Your task to perform on an android device: Open calendar and show me the first week of next month Image 0: 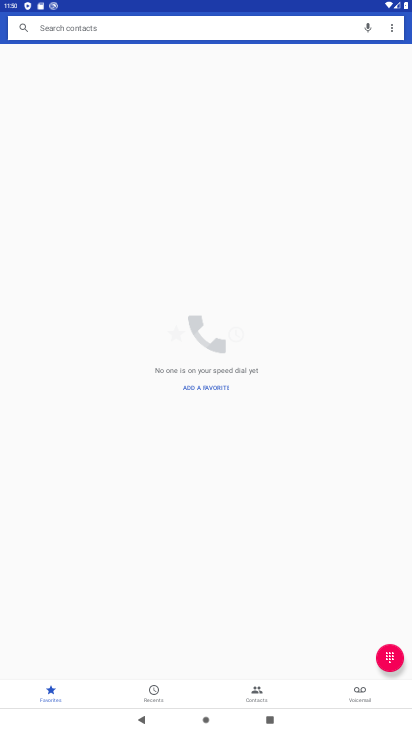
Step 0: press home button
Your task to perform on an android device: Open calendar and show me the first week of next month Image 1: 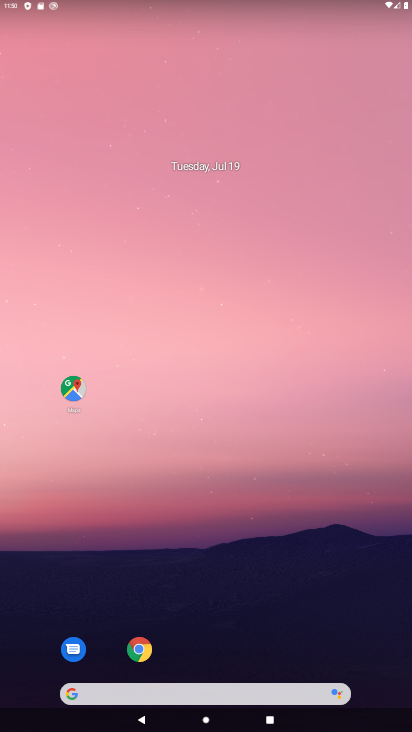
Step 1: drag from (233, 557) to (270, 161)
Your task to perform on an android device: Open calendar and show me the first week of next month Image 2: 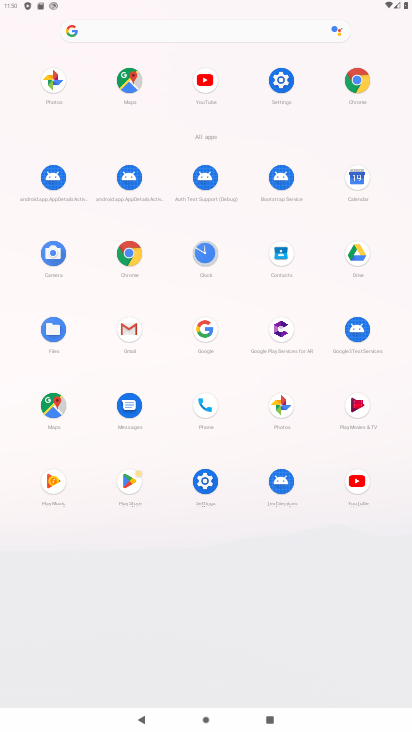
Step 2: click (358, 181)
Your task to perform on an android device: Open calendar and show me the first week of next month Image 3: 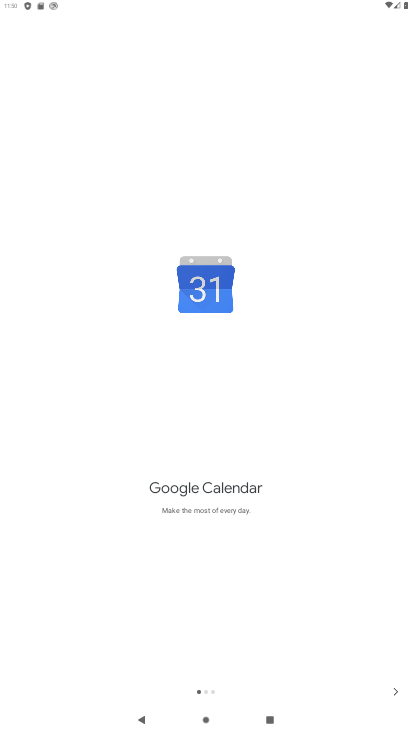
Step 3: click (396, 686)
Your task to perform on an android device: Open calendar and show me the first week of next month Image 4: 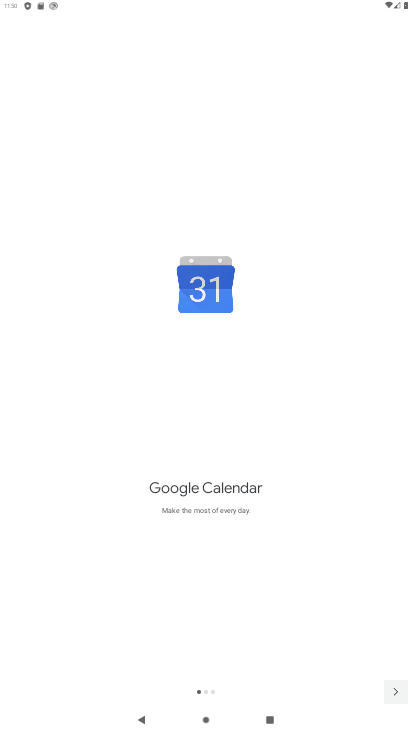
Step 4: click (396, 686)
Your task to perform on an android device: Open calendar and show me the first week of next month Image 5: 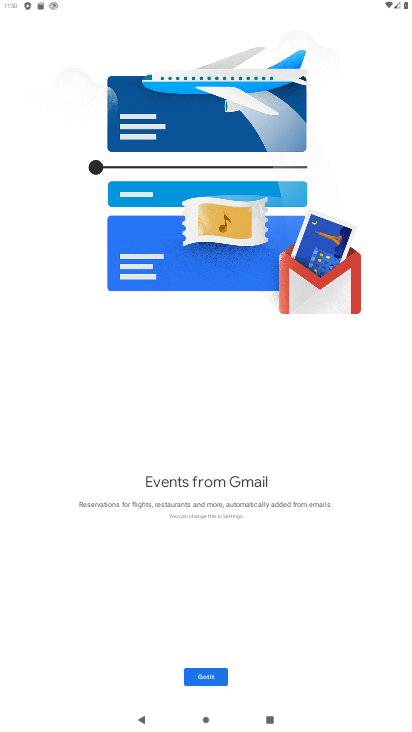
Step 5: click (396, 686)
Your task to perform on an android device: Open calendar and show me the first week of next month Image 6: 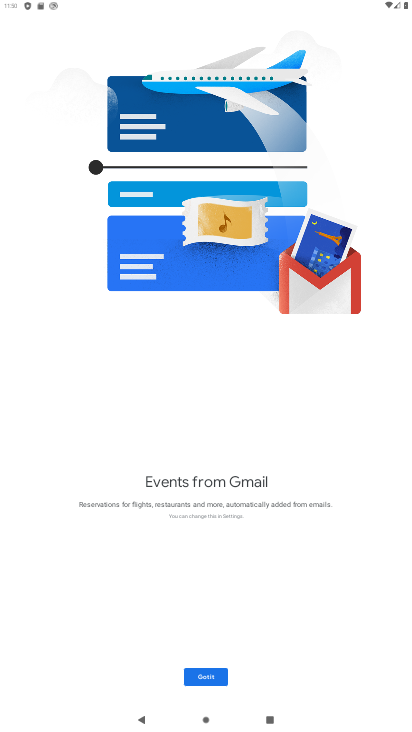
Step 6: click (206, 680)
Your task to perform on an android device: Open calendar and show me the first week of next month Image 7: 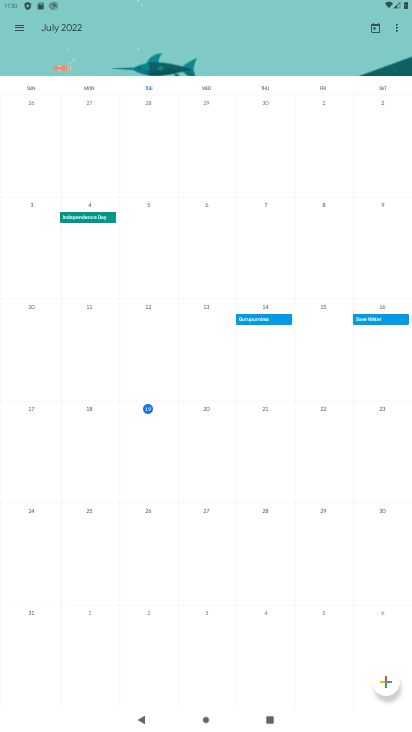
Step 7: drag from (19, 23) to (95, 17)
Your task to perform on an android device: Open calendar and show me the first week of next month Image 8: 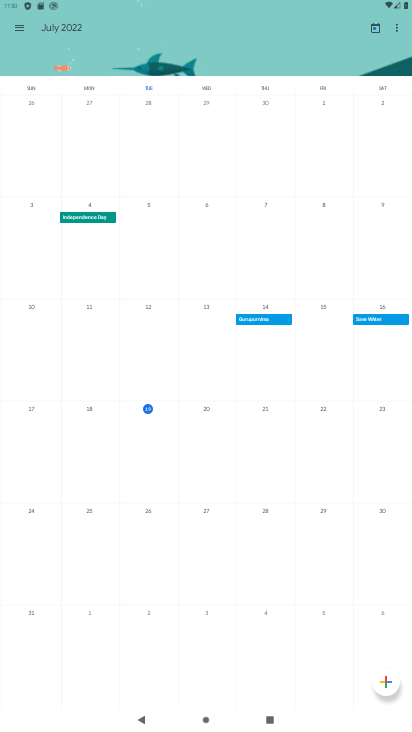
Step 8: drag from (365, 245) to (10, 108)
Your task to perform on an android device: Open calendar and show me the first week of next month Image 9: 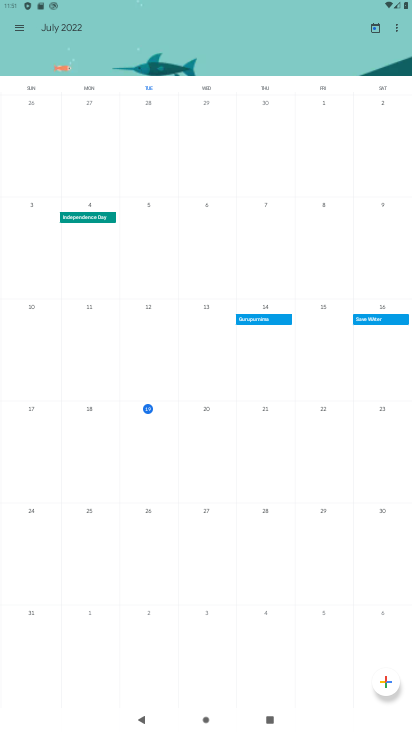
Step 9: drag from (373, 272) to (0, 153)
Your task to perform on an android device: Open calendar and show me the first week of next month Image 10: 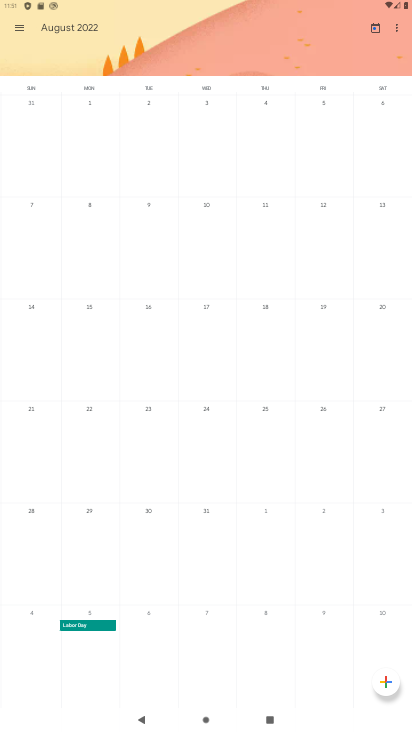
Step 10: click (23, 24)
Your task to perform on an android device: Open calendar and show me the first week of next month Image 11: 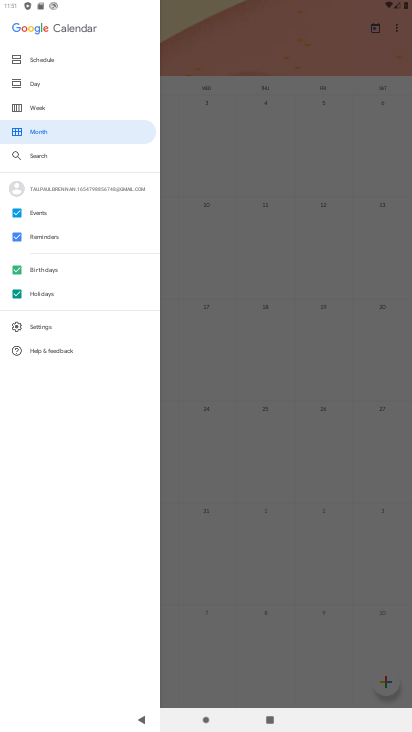
Step 11: click (51, 105)
Your task to perform on an android device: Open calendar and show me the first week of next month Image 12: 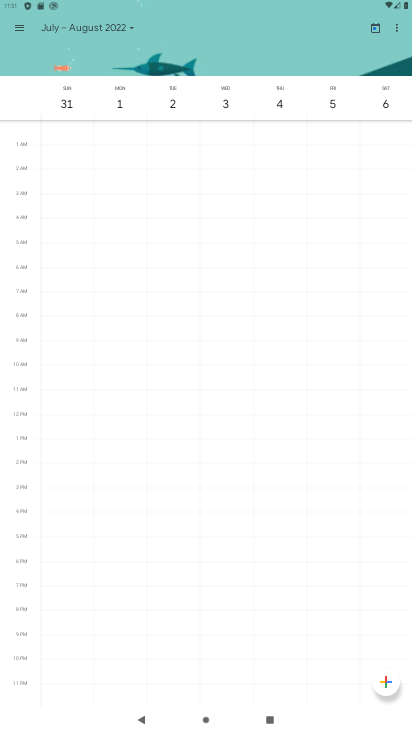
Step 12: task complete